Your task to perform on an android device: stop showing notifications on the lock screen Image 0: 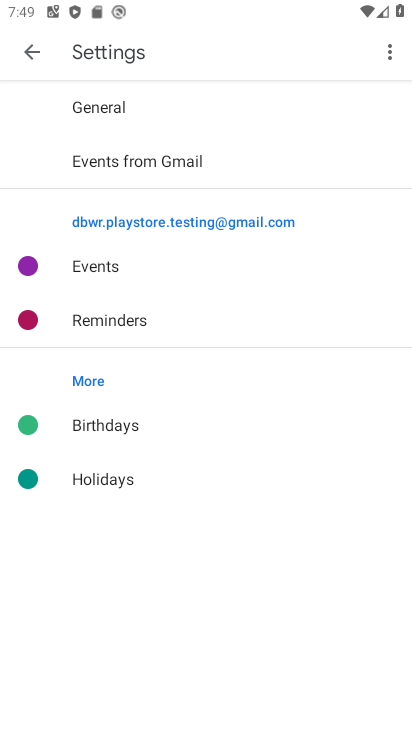
Step 0: press home button
Your task to perform on an android device: stop showing notifications on the lock screen Image 1: 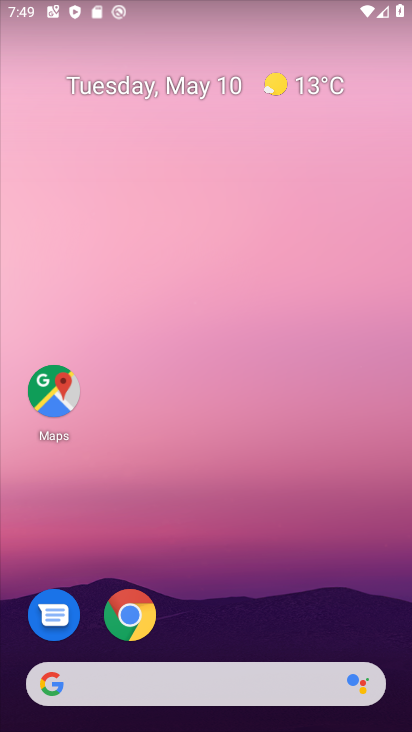
Step 1: drag from (181, 501) to (178, 1)
Your task to perform on an android device: stop showing notifications on the lock screen Image 2: 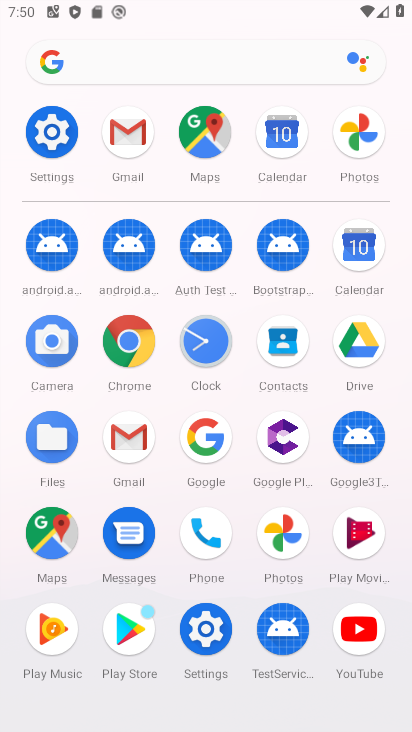
Step 2: click (51, 134)
Your task to perform on an android device: stop showing notifications on the lock screen Image 3: 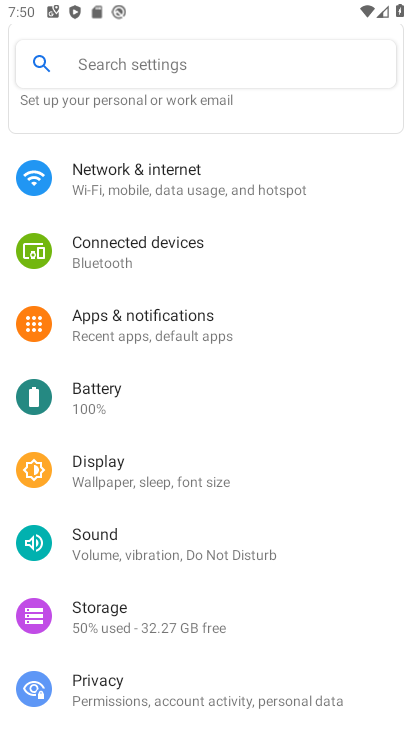
Step 3: click (157, 321)
Your task to perform on an android device: stop showing notifications on the lock screen Image 4: 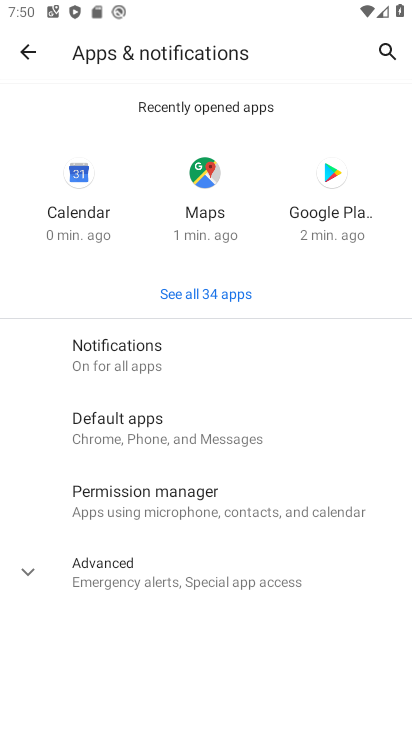
Step 4: click (128, 344)
Your task to perform on an android device: stop showing notifications on the lock screen Image 5: 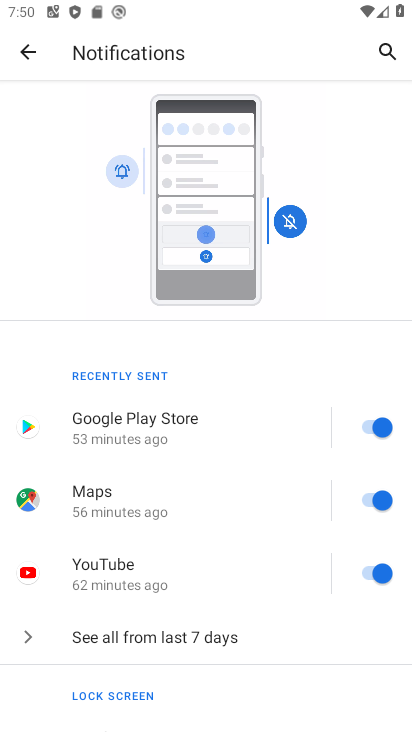
Step 5: drag from (208, 664) to (208, 322)
Your task to perform on an android device: stop showing notifications on the lock screen Image 6: 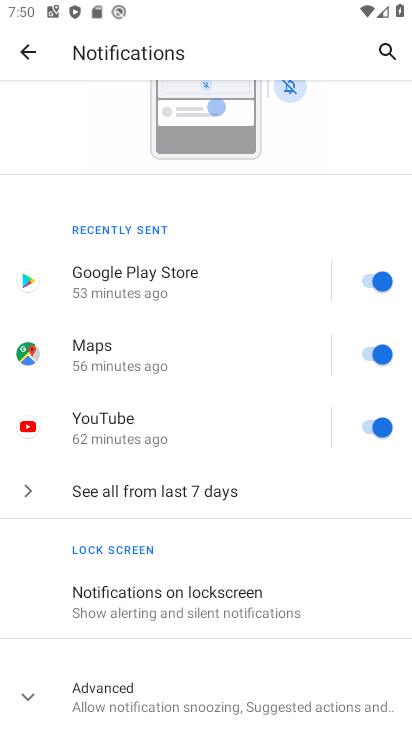
Step 6: click (172, 593)
Your task to perform on an android device: stop showing notifications on the lock screen Image 7: 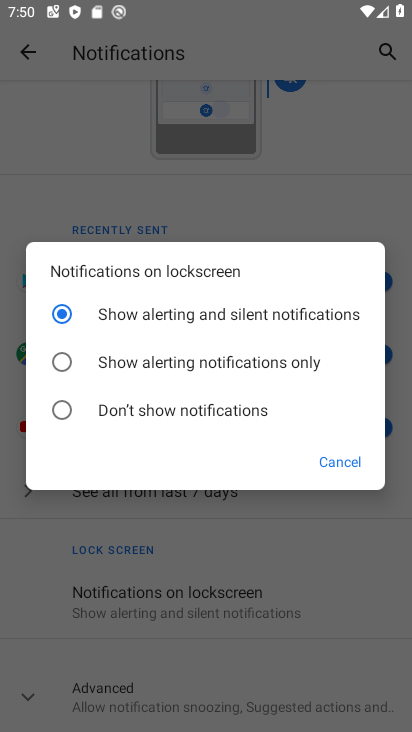
Step 7: click (62, 410)
Your task to perform on an android device: stop showing notifications on the lock screen Image 8: 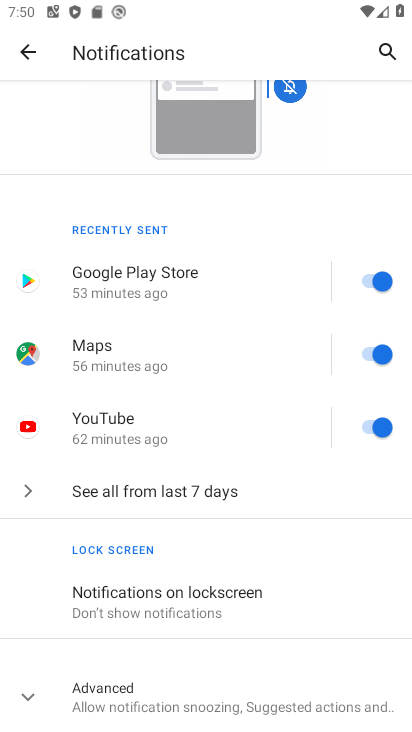
Step 8: task complete